Your task to perform on an android device: What's the weather going to be tomorrow? Image 0: 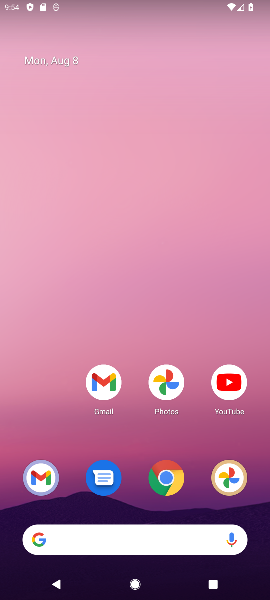
Step 0: drag from (152, 519) to (130, 70)
Your task to perform on an android device: What's the weather going to be tomorrow? Image 1: 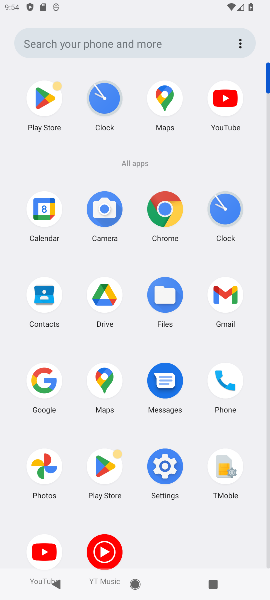
Step 1: click (60, 474)
Your task to perform on an android device: What's the weather going to be tomorrow? Image 2: 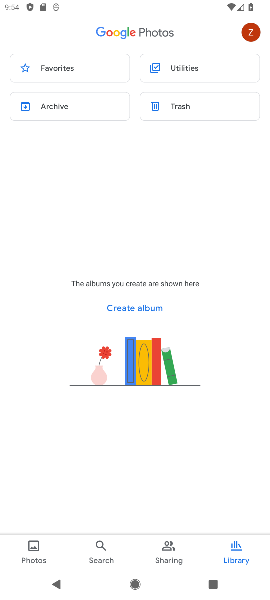
Step 2: click (95, 543)
Your task to perform on an android device: What's the weather going to be tomorrow? Image 3: 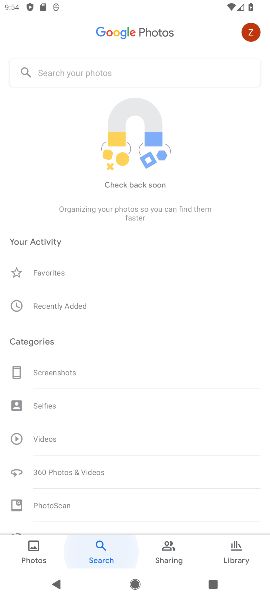
Step 3: click (32, 557)
Your task to perform on an android device: What's the weather going to be tomorrow? Image 4: 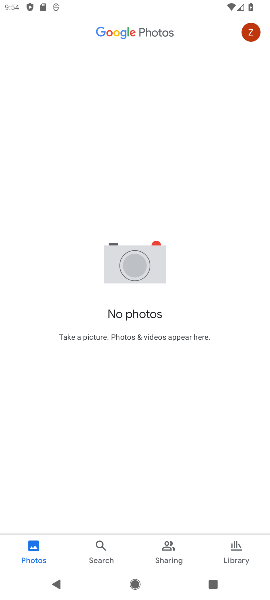
Step 4: task complete